Your task to perform on an android device: manage bookmarks in the chrome app Image 0: 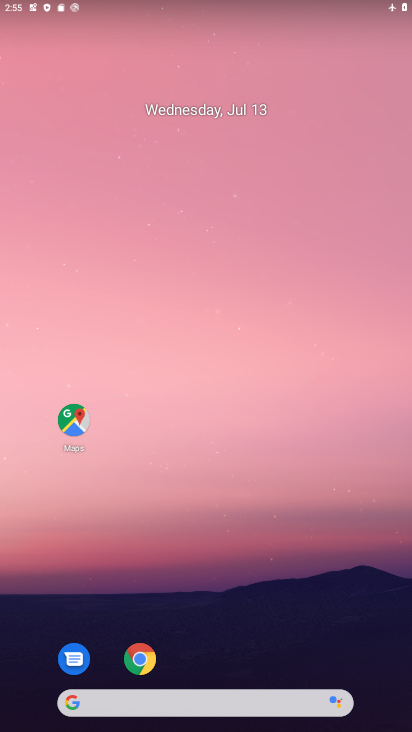
Step 0: click (140, 659)
Your task to perform on an android device: manage bookmarks in the chrome app Image 1: 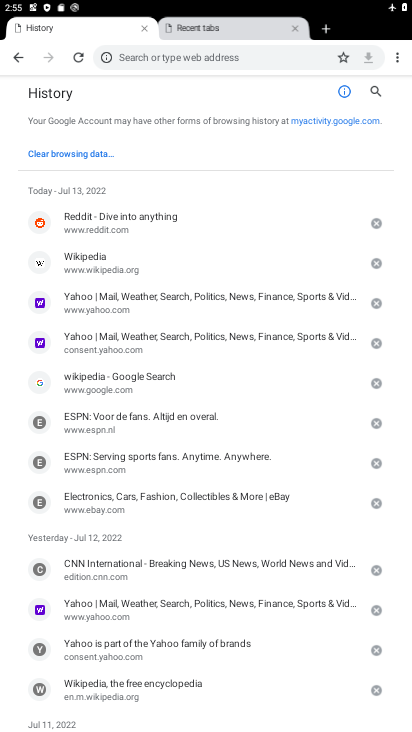
Step 1: click (395, 58)
Your task to perform on an android device: manage bookmarks in the chrome app Image 2: 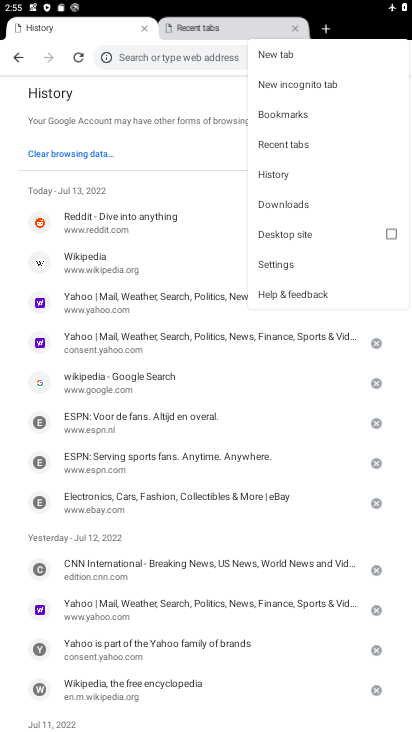
Step 2: click (267, 116)
Your task to perform on an android device: manage bookmarks in the chrome app Image 3: 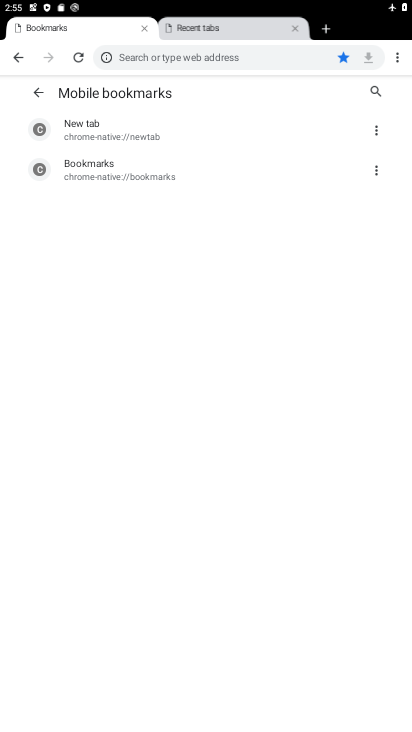
Step 3: click (83, 172)
Your task to perform on an android device: manage bookmarks in the chrome app Image 4: 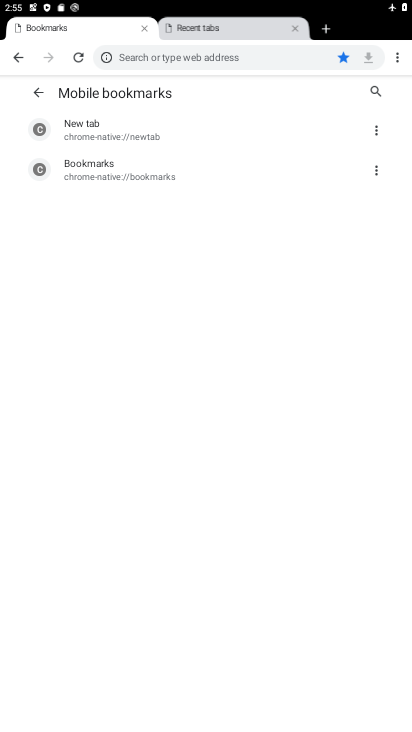
Step 4: click (83, 172)
Your task to perform on an android device: manage bookmarks in the chrome app Image 5: 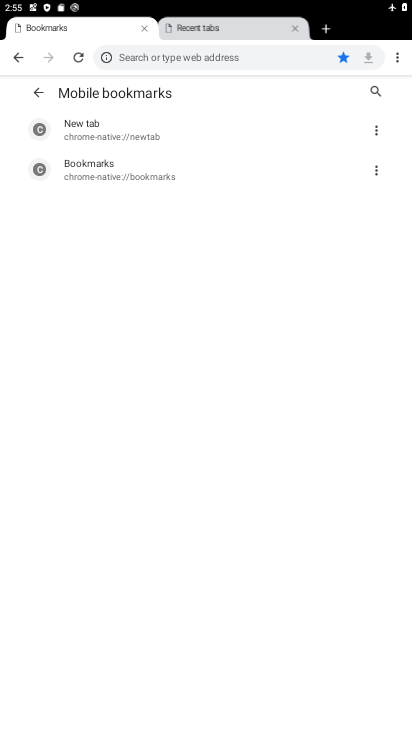
Step 5: click (80, 164)
Your task to perform on an android device: manage bookmarks in the chrome app Image 6: 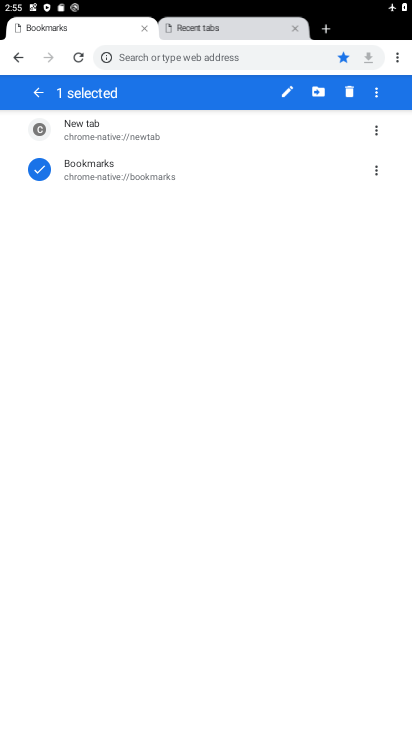
Step 6: click (80, 164)
Your task to perform on an android device: manage bookmarks in the chrome app Image 7: 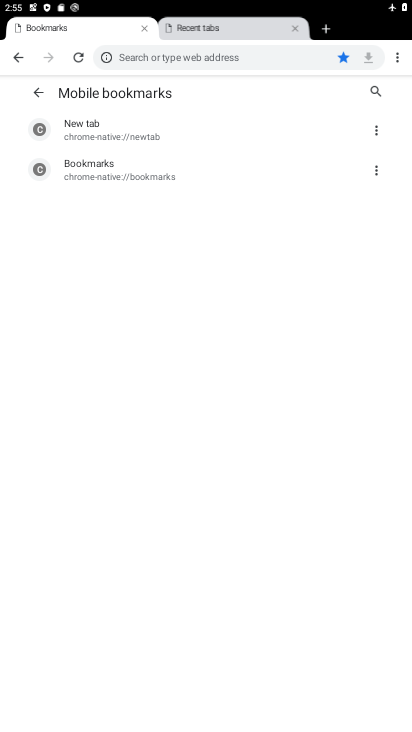
Step 7: click (80, 164)
Your task to perform on an android device: manage bookmarks in the chrome app Image 8: 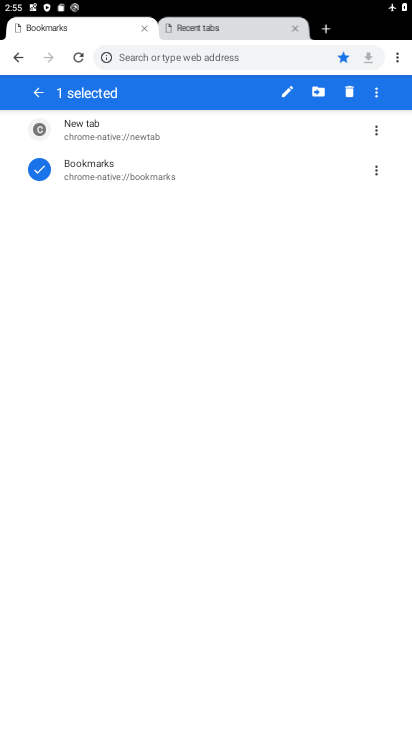
Step 8: click (317, 85)
Your task to perform on an android device: manage bookmarks in the chrome app Image 9: 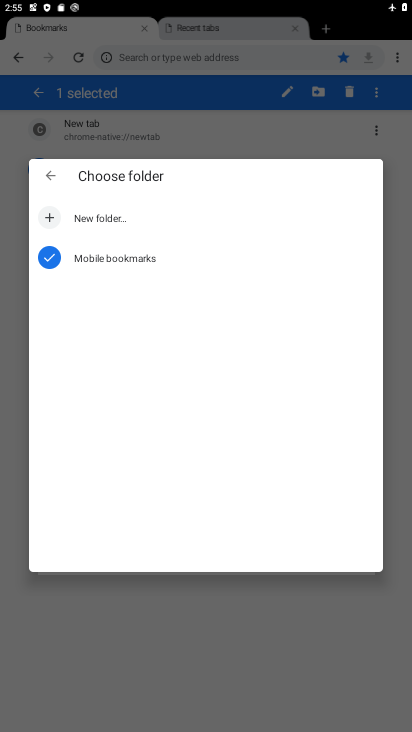
Step 9: click (49, 217)
Your task to perform on an android device: manage bookmarks in the chrome app Image 10: 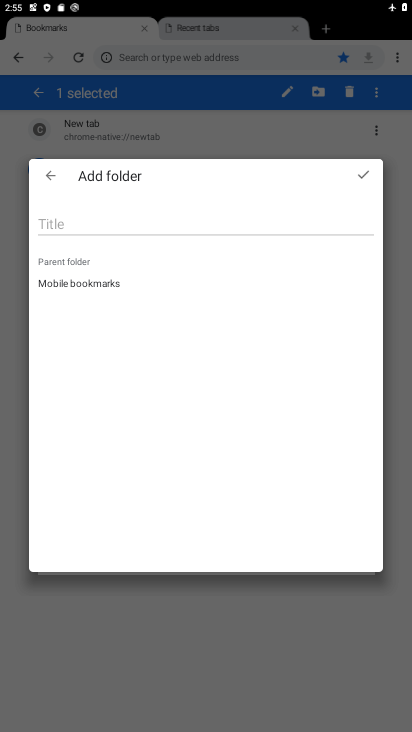
Step 10: type "tvf"
Your task to perform on an android device: manage bookmarks in the chrome app Image 11: 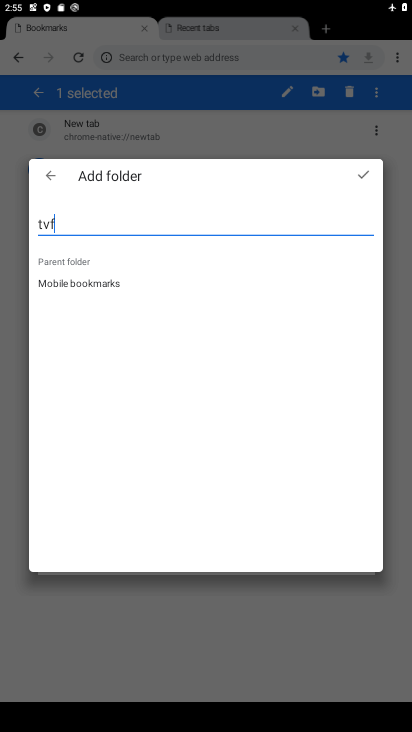
Step 11: click (365, 173)
Your task to perform on an android device: manage bookmarks in the chrome app Image 12: 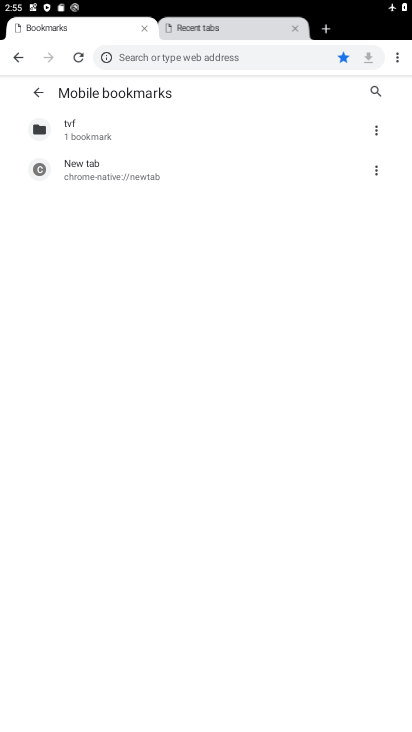
Step 12: task complete